Your task to perform on an android device: Show me the alarms in the clock app Image 0: 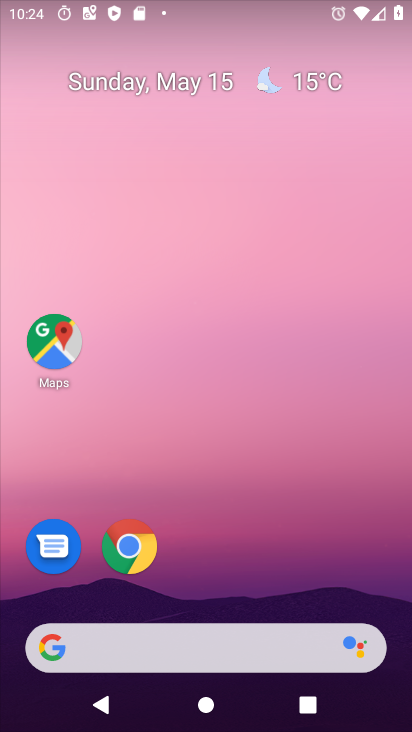
Step 0: drag from (271, 697) to (244, 4)
Your task to perform on an android device: Show me the alarms in the clock app Image 1: 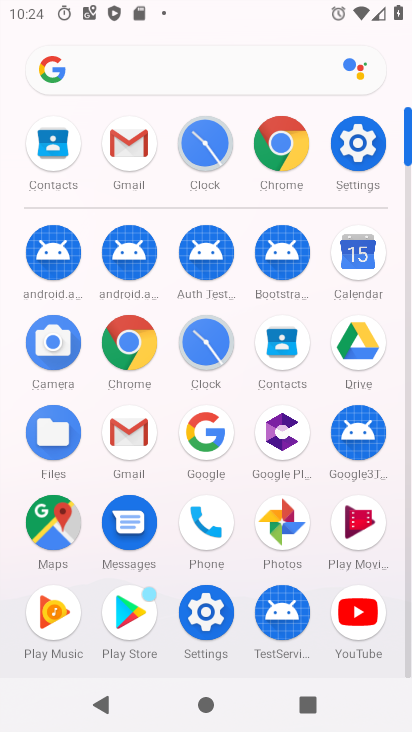
Step 1: click (188, 347)
Your task to perform on an android device: Show me the alarms in the clock app Image 2: 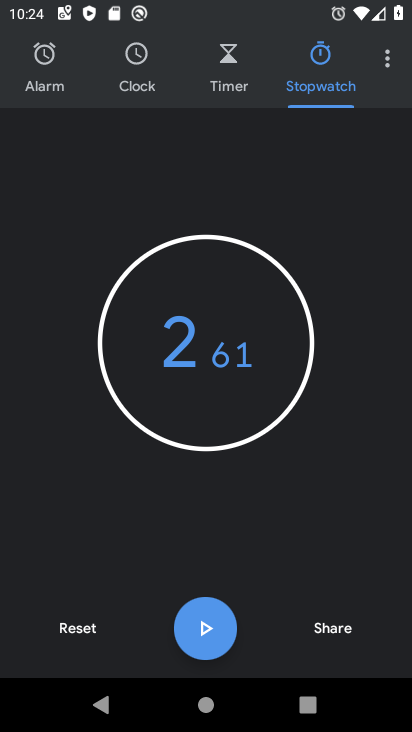
Step 2: click (139, 63)
Your task to perform on an android device: Show me the alarms in the clock app Image 3: 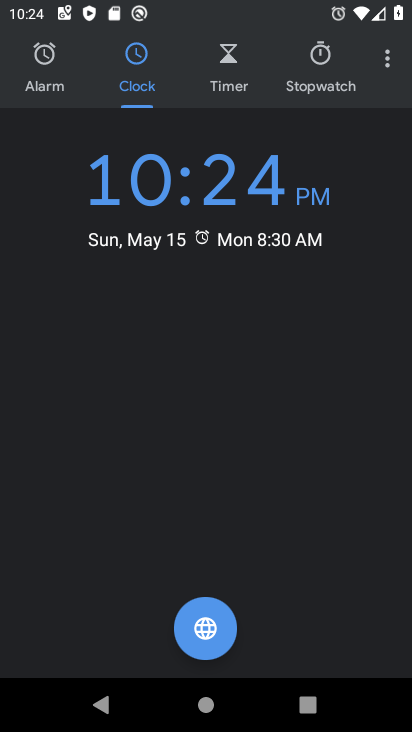
Step 3: task complete